Your task to perform on an android device: Open CNN.com Image 0: 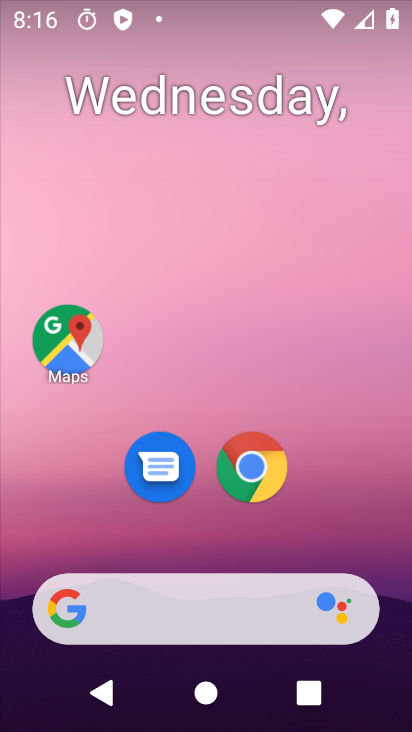
Step 0: click (242, 458)
Your task to perform on an android device: Open CNN.com Image 1: 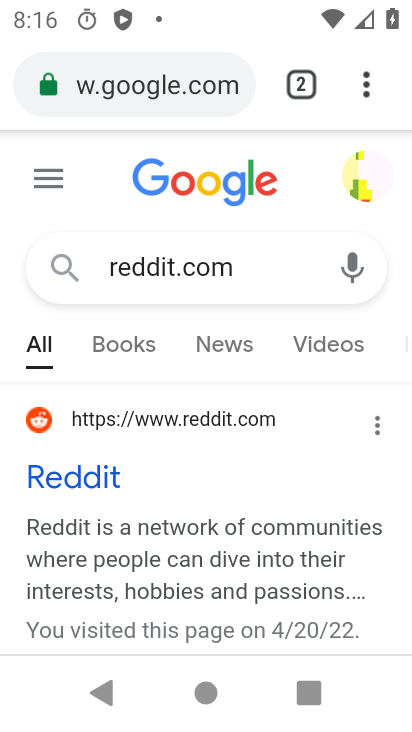
Step 1: click (244, 261)
Your task to perform on an android device: Open CNN.com Image 2: 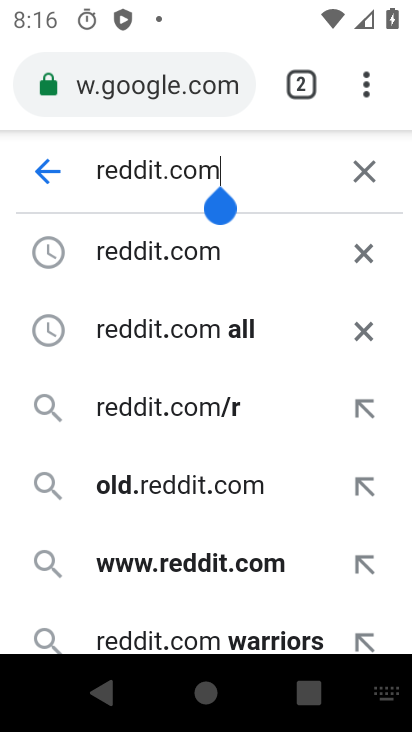
Step 2: click (353, 166)
Your task to perform on an android device: Open CNN.com Image 3: 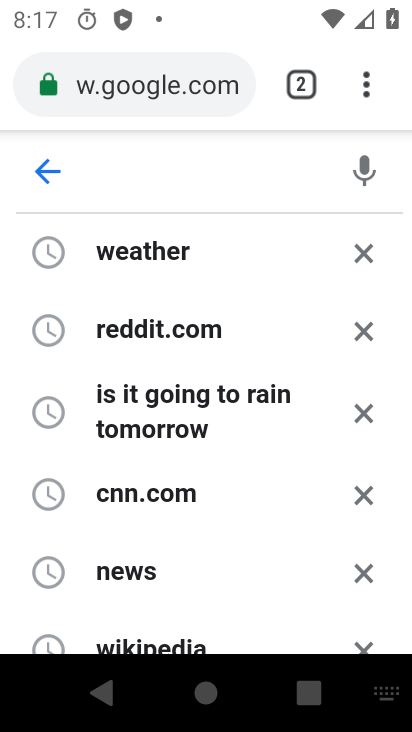
Step 3: click (252, 78)
Your task to perform on an android device: Open CNN.com Image 4: 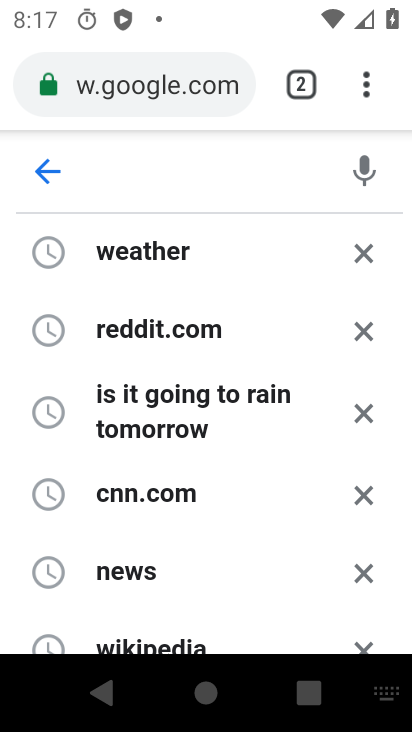
Step 4: click (238, 82)
Your task to perform on an android device: Open CNN.com Image 5: 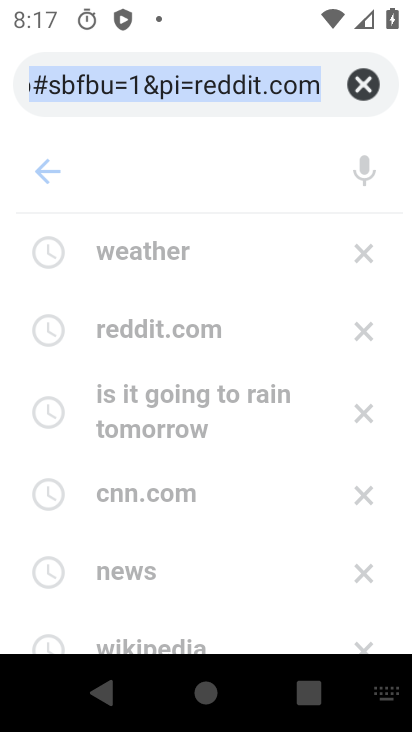
Step 5: click (358, 84)
Your task to perform on an android device: Open CNN.com Image 6: 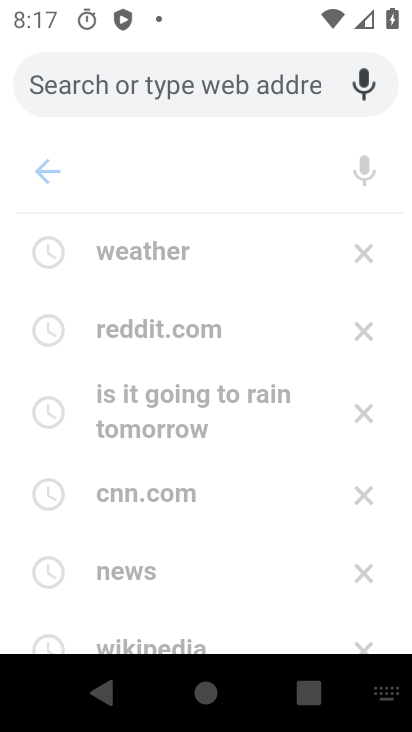
Step 6: type "CNN.com"
Your task to perform on an android device: Open CNN.com Image 7: 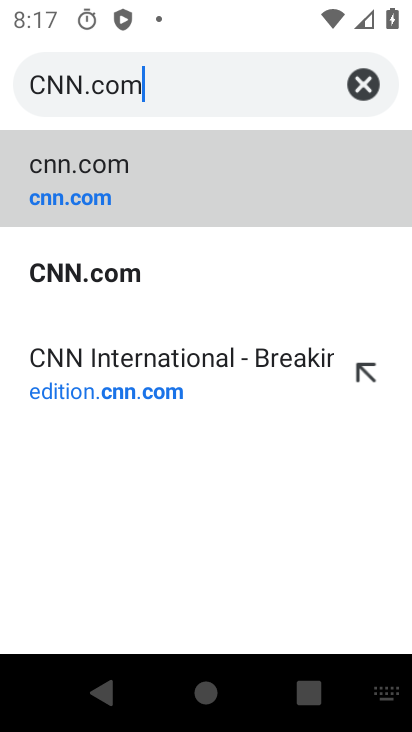
Step 7: click (46, 269)
Your task to perform on an android device: Open CNN.com Image 8: 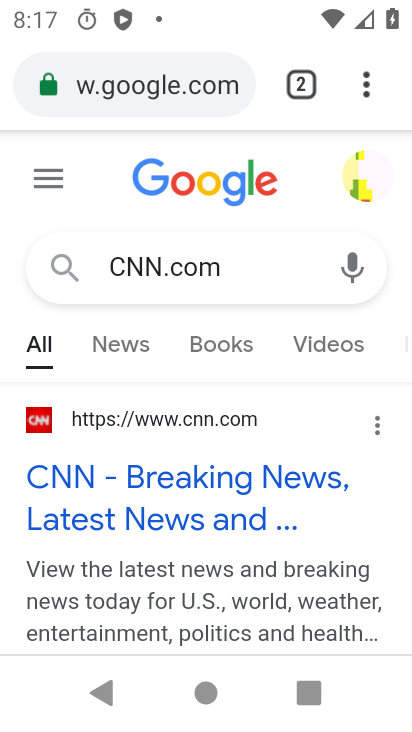
Step 8: task complete